Your task to perform on an android device: toggle notifications settings in the gmail app Image 0: 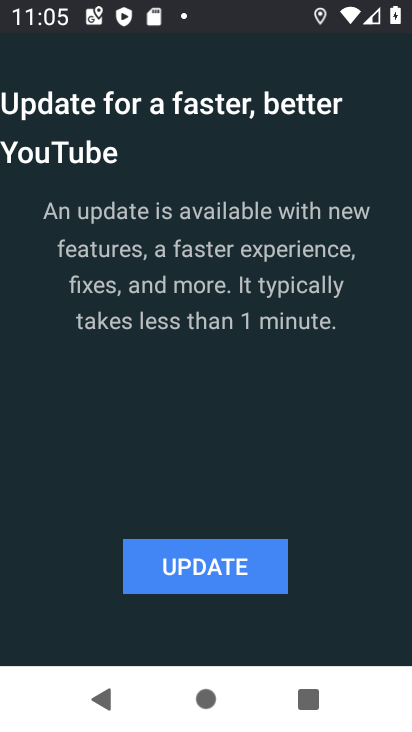
Step 0: press home button
Your task to perform on an android device: toggle notifications settings in the gmail app Image 1: 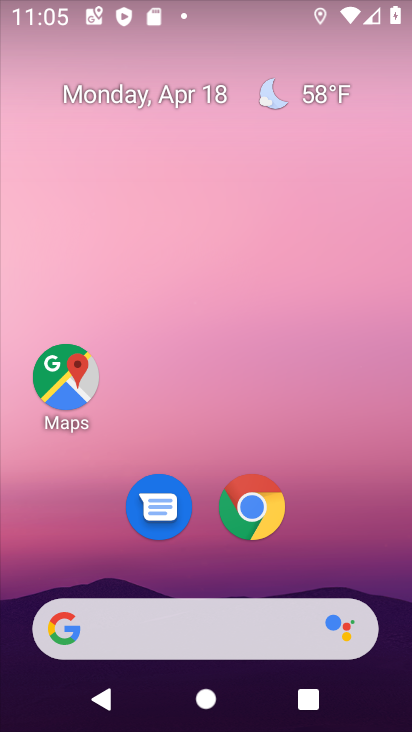
Step 1: click (46, 372)
Your task to perform on an android device: toggle notifications settings in the gmail app Image 2: 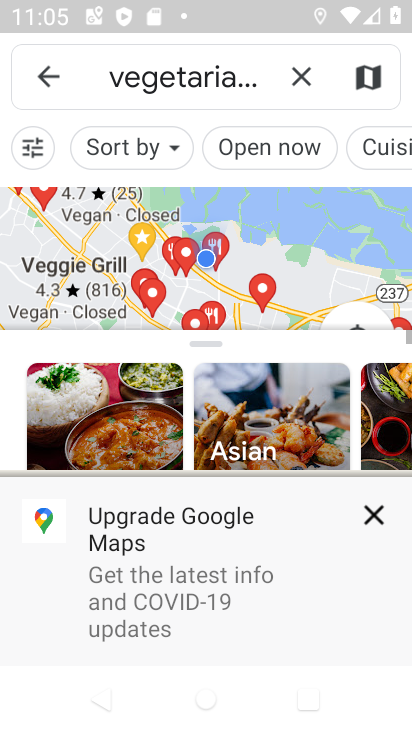
Step 2: task complete